Your task to perform on an android device: set the stopwatch Image 0: 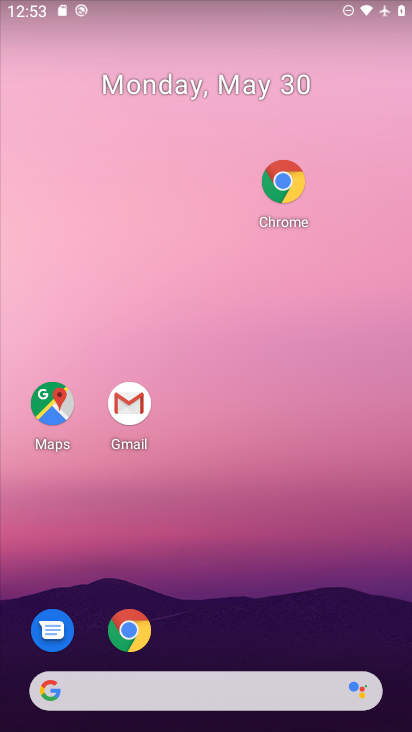
Step 0: click (213, 154)
Your task to perform on an android device: set the stopwatch Image 1: 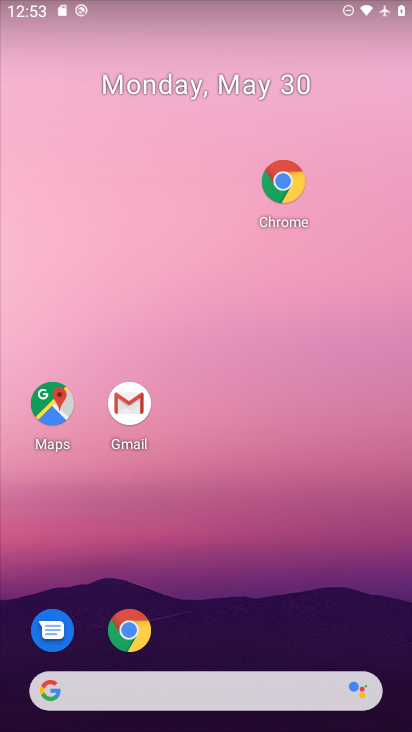
Step 1: drag from (271, 640) to (201, 5)
Your task to perform on an android device: set the stopwatch Image 2: 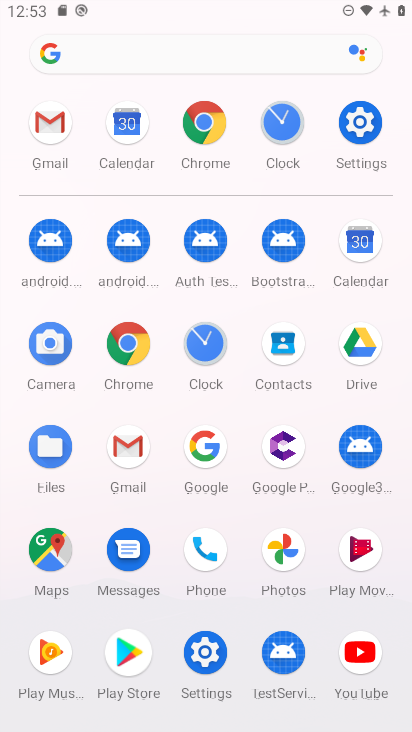
Step 2: click (270, 124)
Your task to perform on an android device: set the stopwatch Image 3: 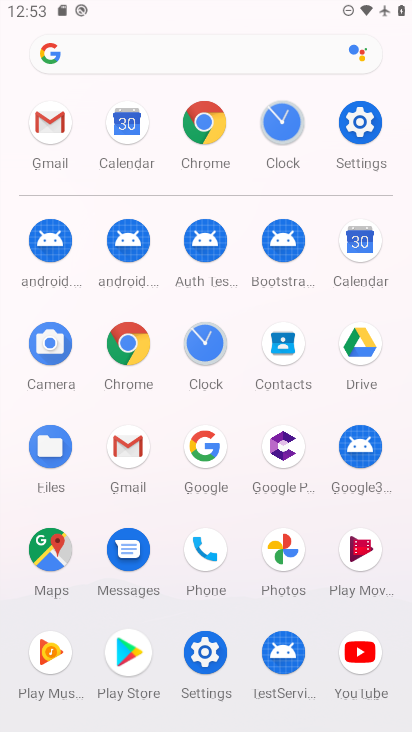
Step 3: click (275, 124)
Your task to perform on an android device: set the stopwatch Image 4: 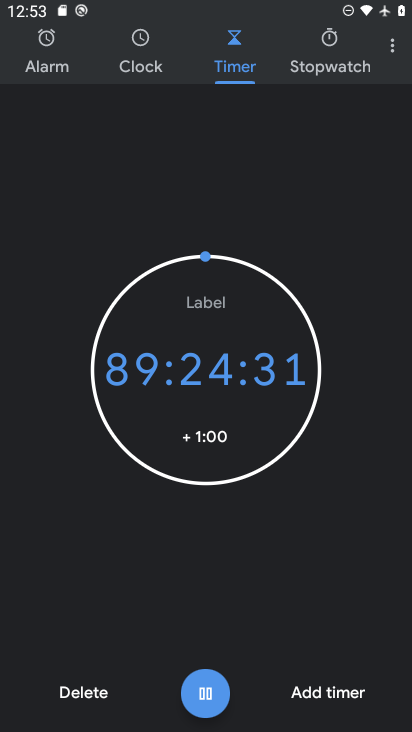
Step 4: click (285, 124)
Your task to perform on an android device: set the stopwatch Image 5: 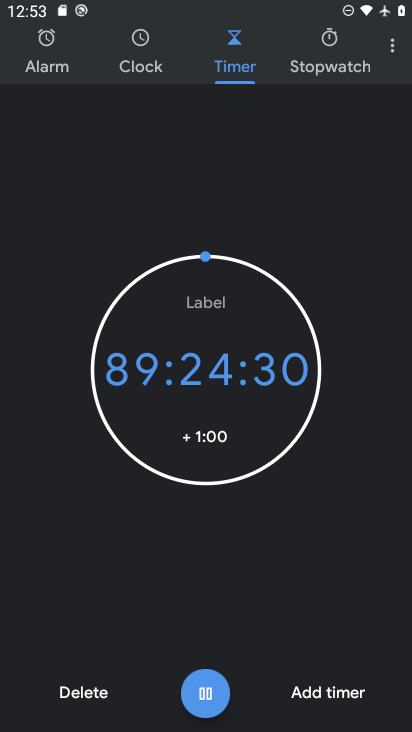
Step 5: click (286, 125)
Your task to perform on an android device: set the stopwatch Image 6: 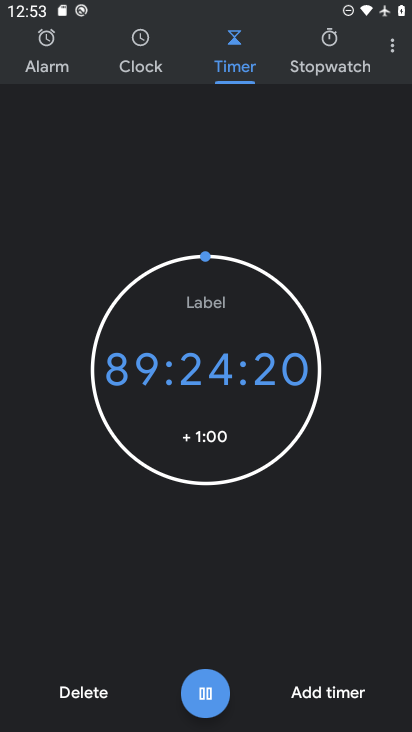
Step 6: click (344, 55)
Your task to perform on an android device: set the stopwatch Image 7: 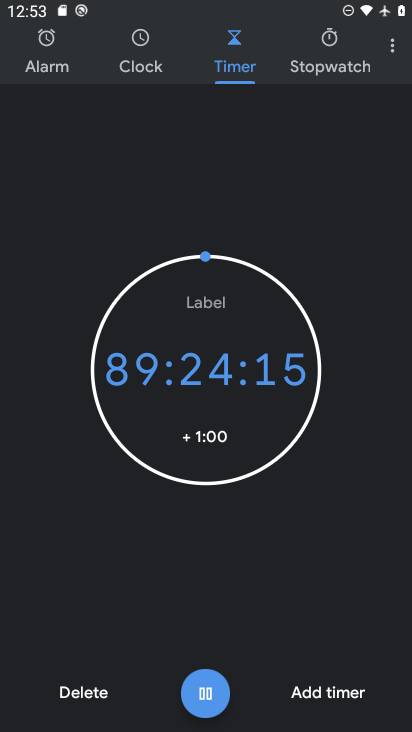
Step 7: click (328, 75)
Your task to perform on an android device: set the stopwatch Image 8: 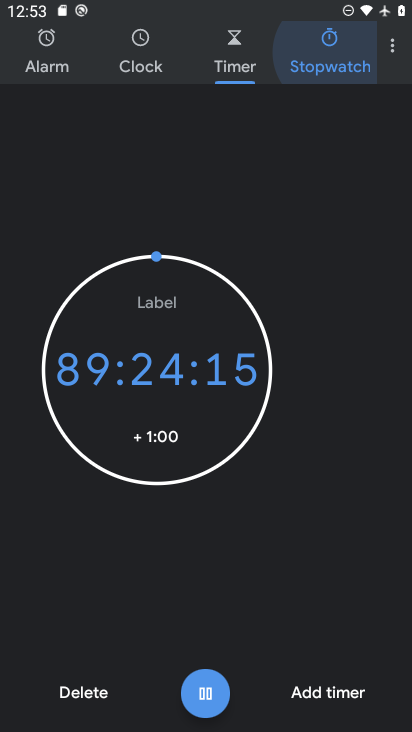
Step 8: click (332, 72)
Your task to perform on an android device: set the stopwatch Image 9: 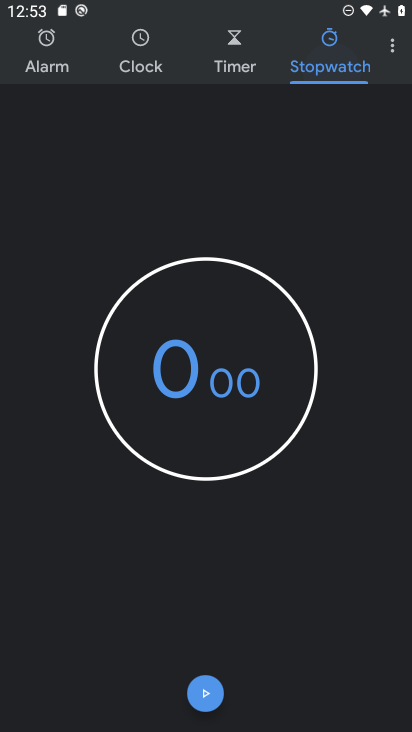
Step 9: click (332, 72)
Your task to perform on an android device: set the stopwatch Image 10: 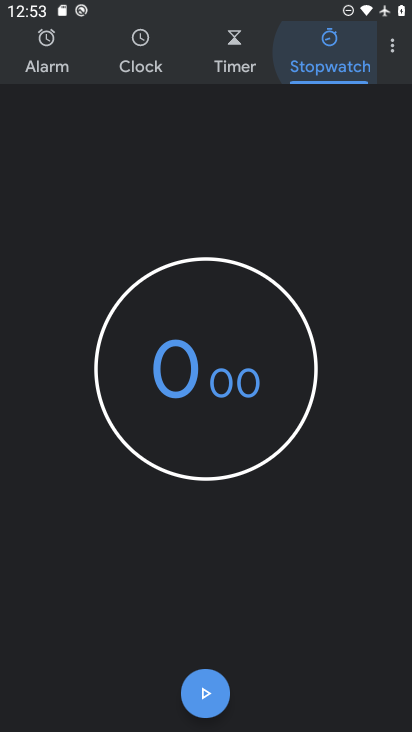
Step 10: click (332, 72)
Your task to perform on an android device: set the stopwatch Image 11: 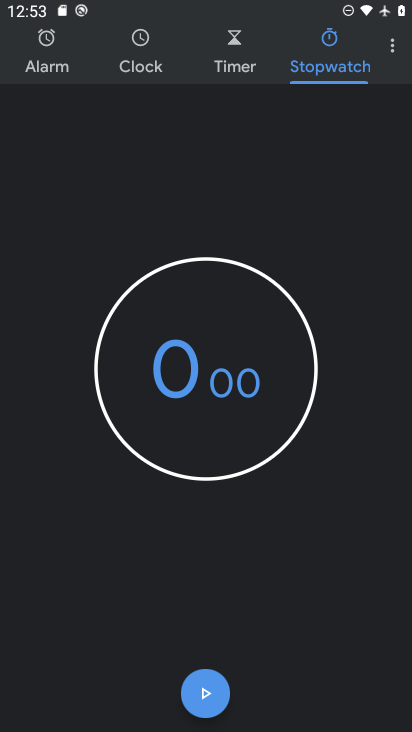
Step 11: click (207, 684)
Your task to perform on an android device: set the stopwatch Image 12: 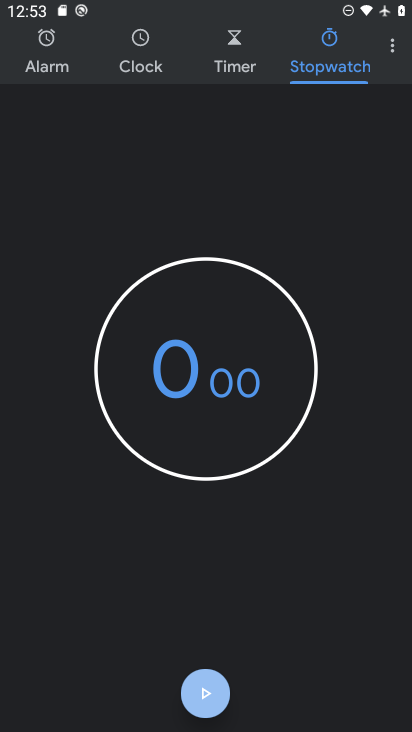
Step 12: click (207, 686)
Your task to perform on an android device: set the stopwatch Image 13: 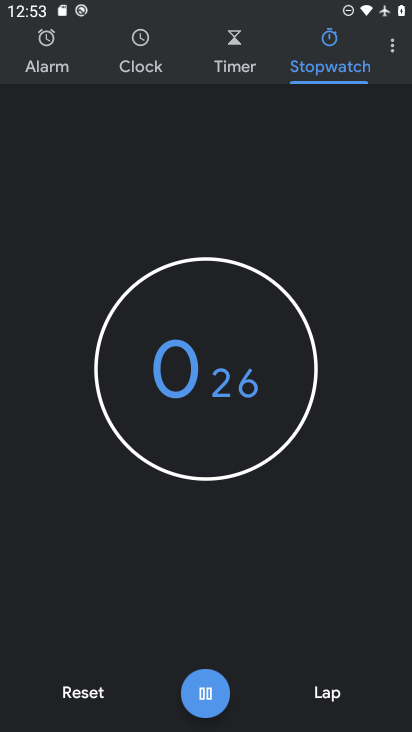
Step 13: click (206, 687)
Your task to perform on an android device: set the stopwatch Image 14: 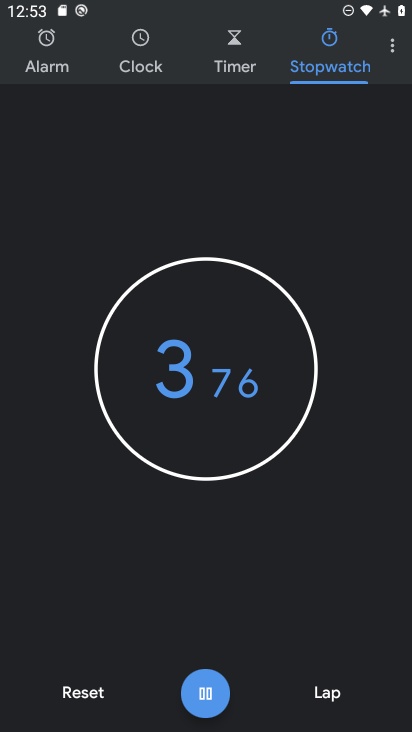
Step 14: click (201, 690)
Your task to perform on an android device: set the stopwatch Image 15: 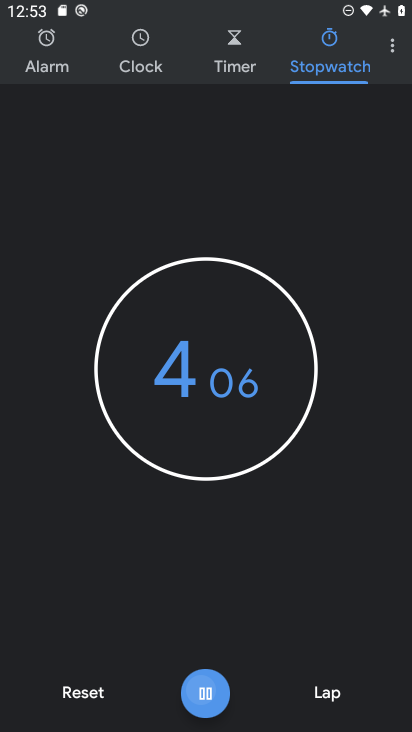
Step 15: click (201, 690)
Your task to perform on an android device: set the stopwatch Image 16: 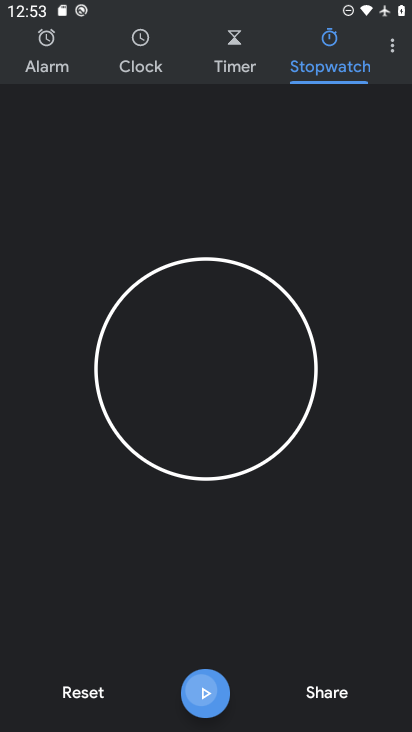
Step 16: click (203, 689)
Your task to perform on an android device: set the stopwatch Image 17: 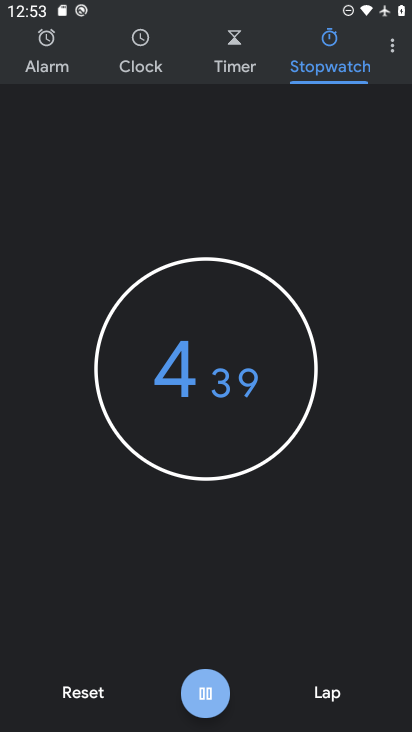
Step 17: click (204, 689)
Your task to perform on an android device: set the stopwatch Image 18: 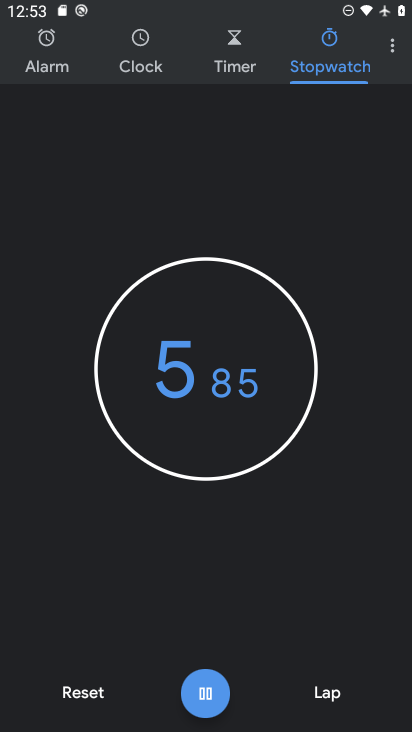
Step 18: click (206, 692)
Your task to perform on an android device: set the stopwatch Image 19: 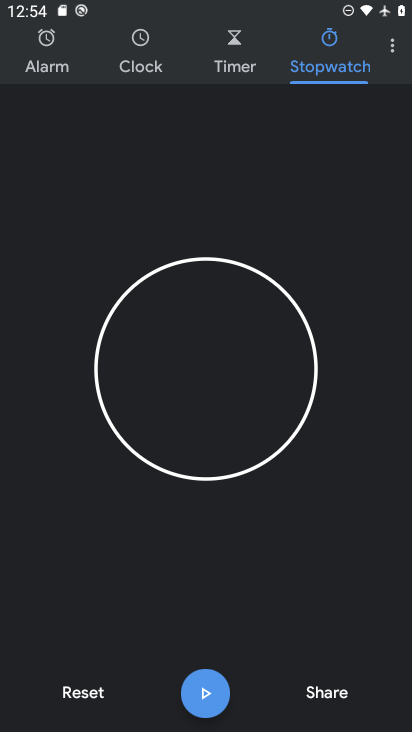
Step 19: task complete